Your task to perform on an android device: Open accessibility settings Image 0: 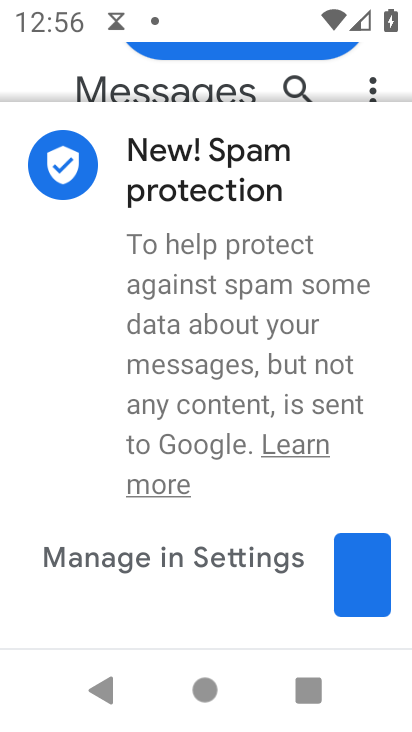
Step 0: press back button
Your task to perform on an android device: Open accessibility settings Image 1: 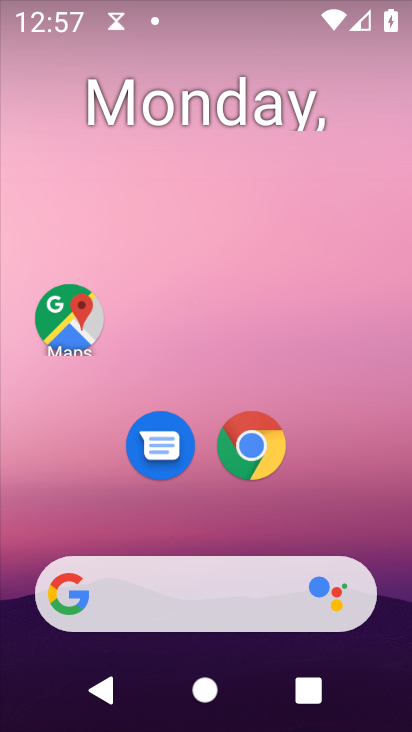
Step 1: drag from (399, 687) to (146, 37)
Your task to perform on an android device: Open accessibility settings Image 2: 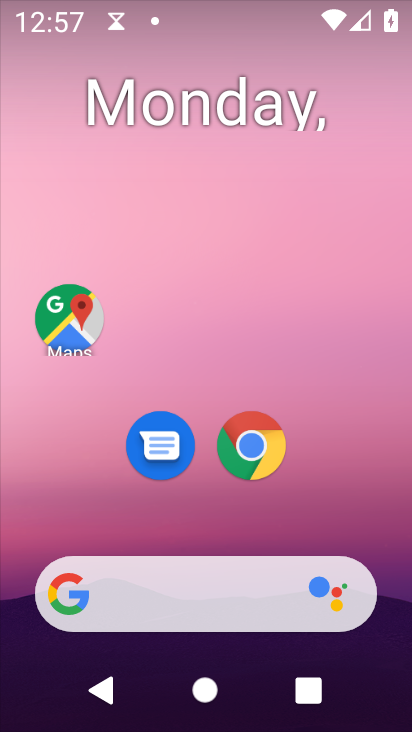
Step 2: drag from (317, 452) to (241, 93)
Your task to perform on an android device: Open accessibility settings Image 3: 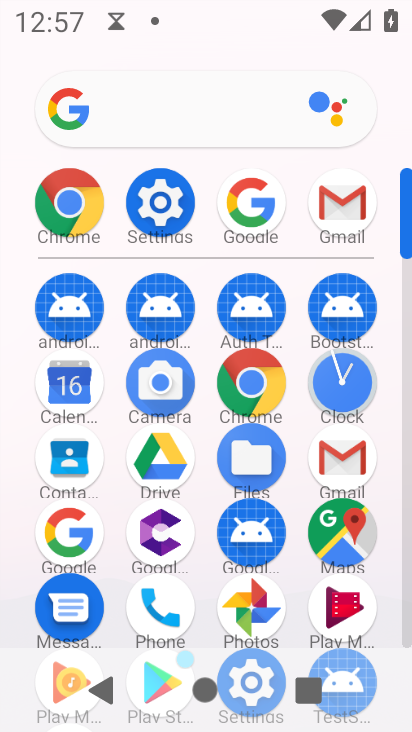
Step 3: click (160, 204)
Your task to perform on an android device: Open accessibility settings Image 4: 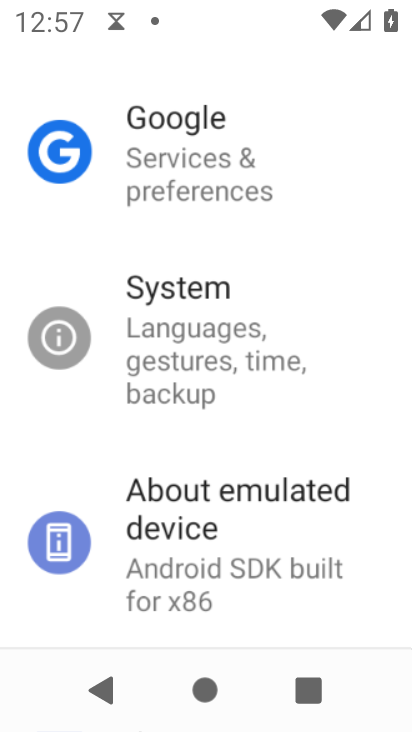
Step 4: click (167, 200)
Your task to perform on an android device: Open accessibility settings Image 5: 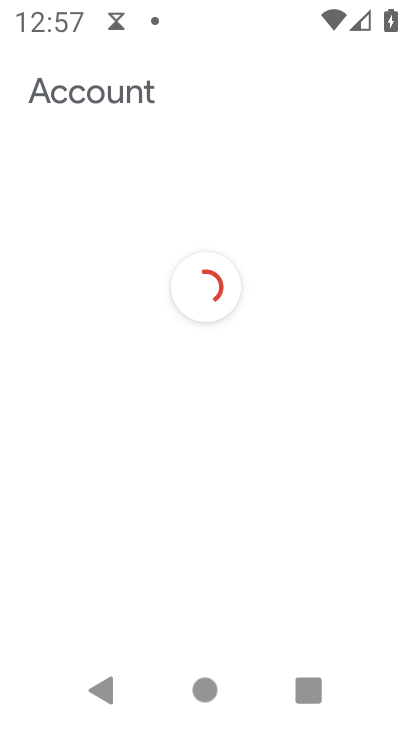
Step 5: press back button
Your task to perform on an android device: Open accessibility settings Image 6: 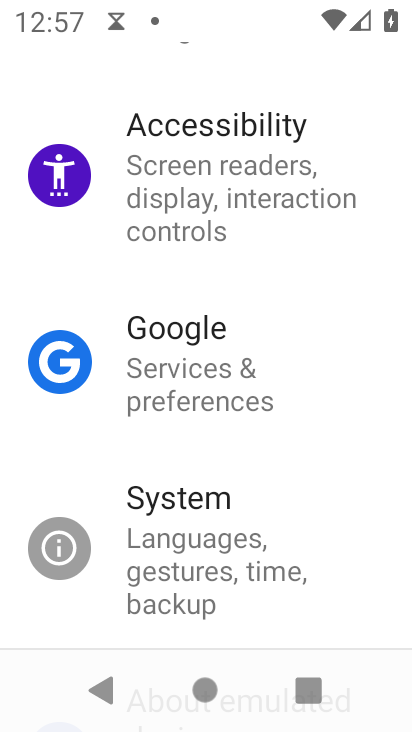
Step 6: click (202, 176)
Your task to perform on an android device: Open accessibility settings Image 7: 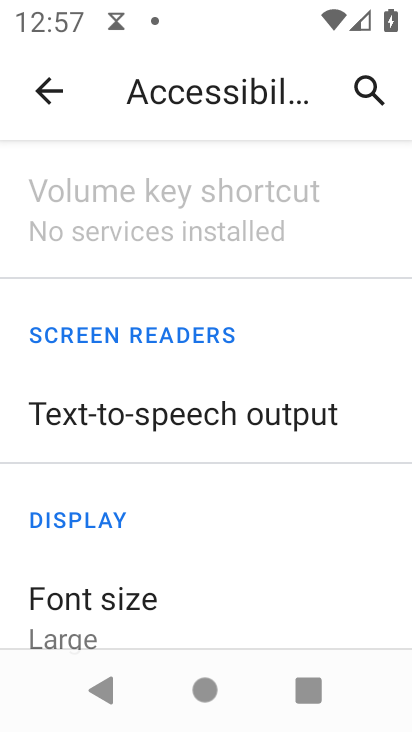
Step 7: task complete